Your task to perform on an android device: toggle improve location accuracy Image 0: 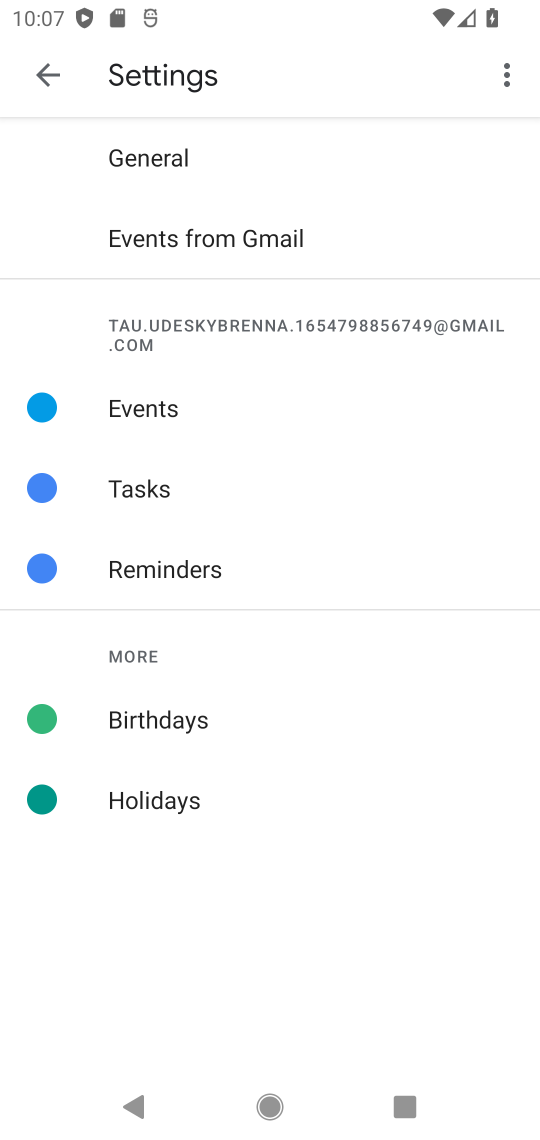
Step 0: press back button
Your task to perform on an android device: toggle improve location accuracy Image 1: 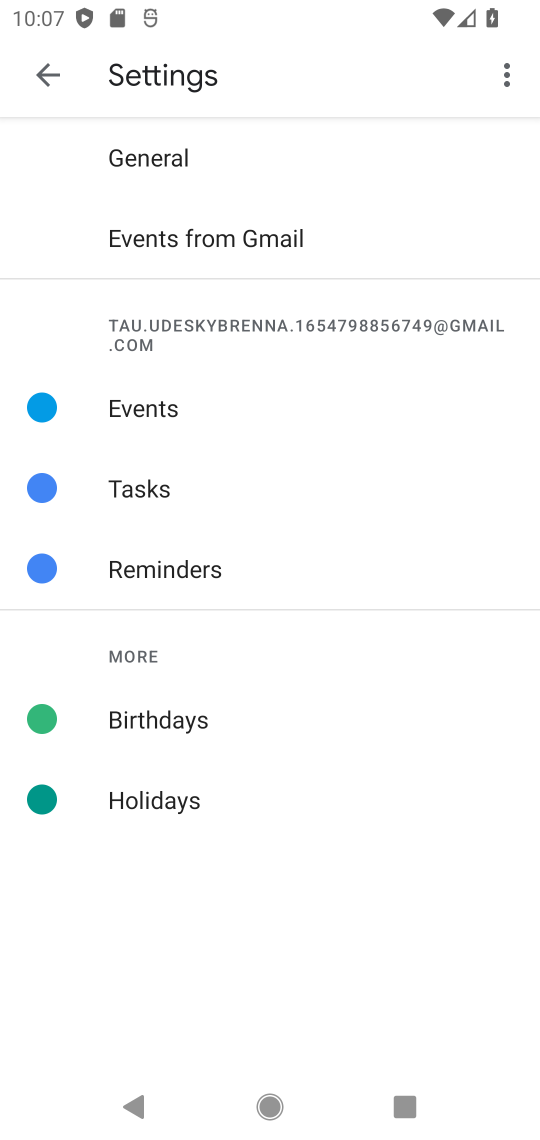
Step 1: press back button
Your task to perform on an android device: toggle improve location accuracy Image 2: 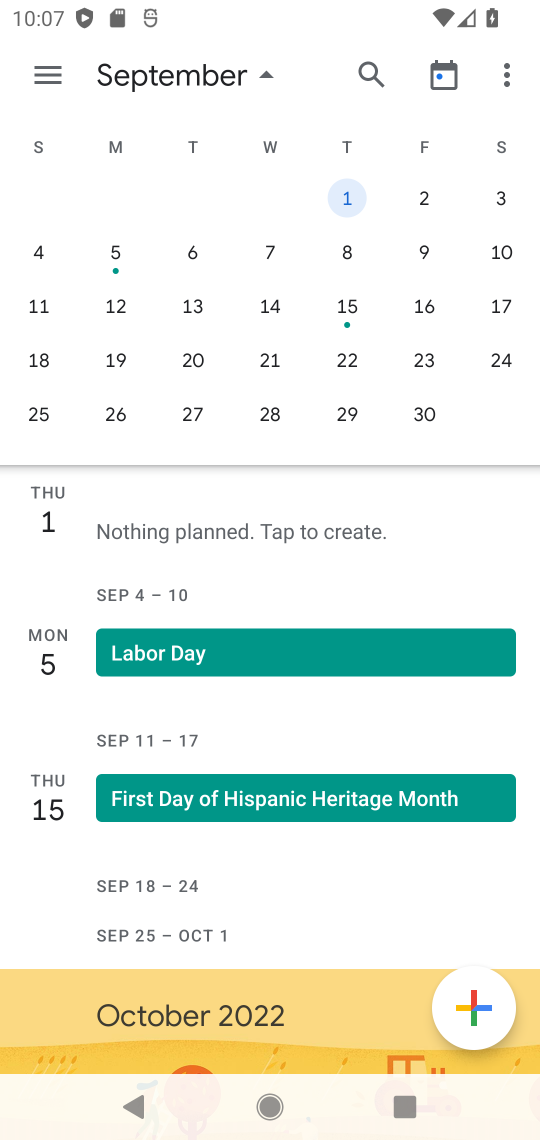
Step 2: press back button
Your task to perform on an android device: toggle improve location accuracy Image 3: 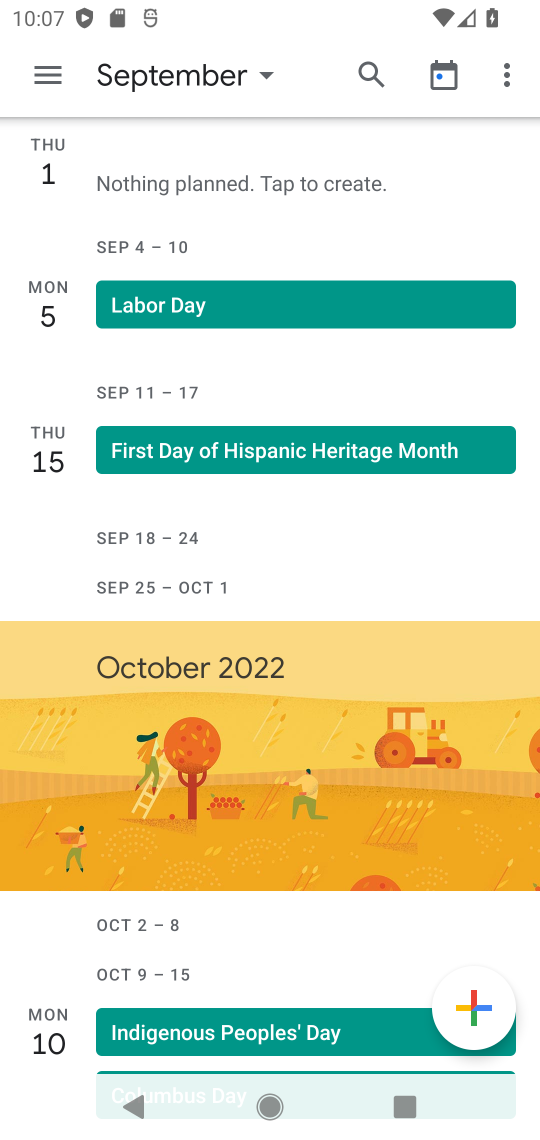
Step 3: press back button
Your task to perform on an android device: toggle improve location accuracy Image 4: 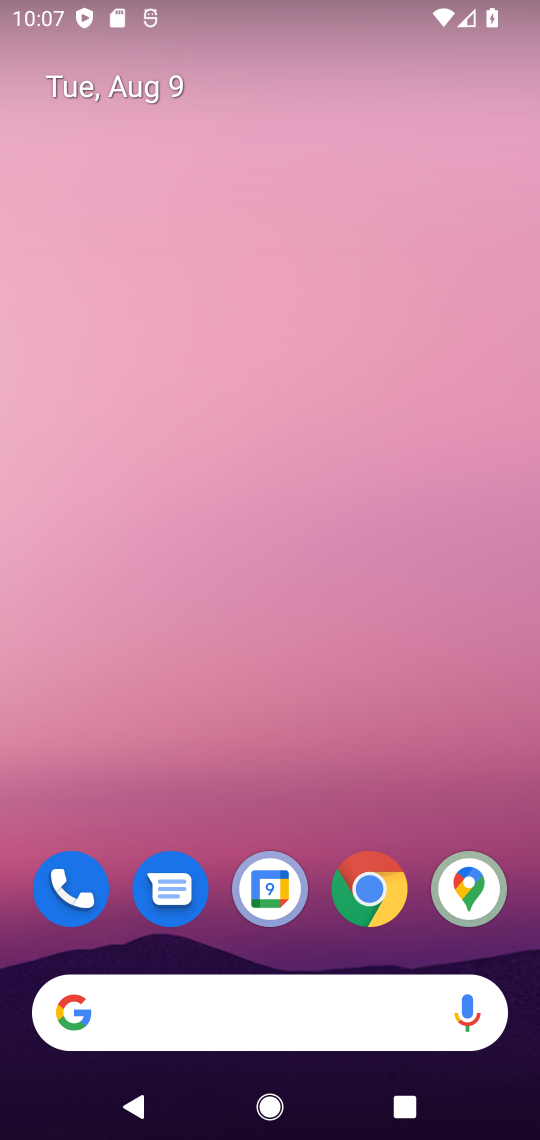
Step 4: drag from (226, 876) to (376, 163)
Your task to perform on an android device: toggle improve location accuracy Image 5: 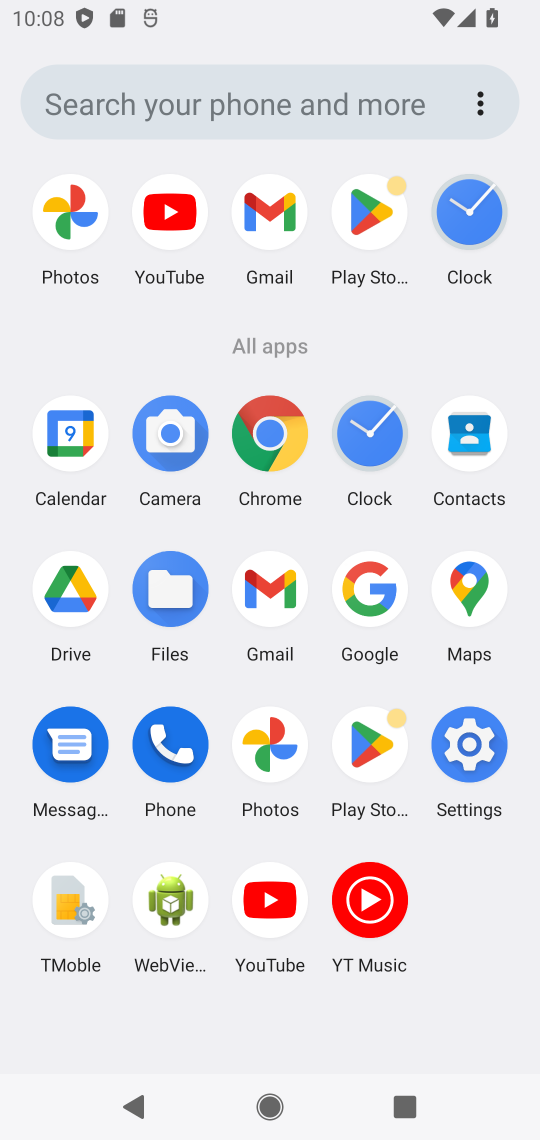
Step 5: click (461, 743)
Your task to perform on an android device: toggle improve location accuracy Image 6: 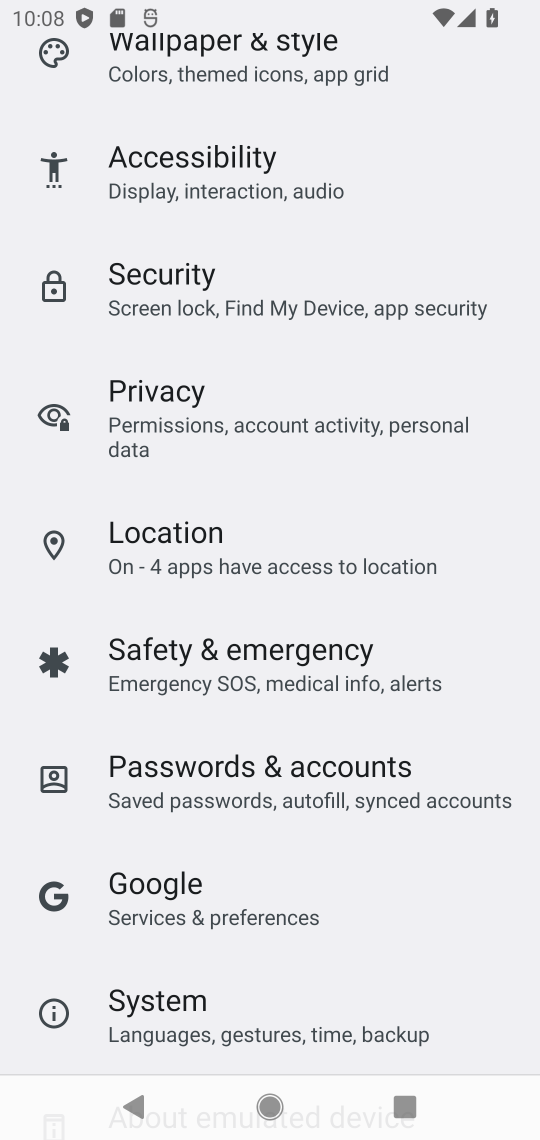
Step 6: click (248, 534)
Your task to perform on an android device: toggle improve location accuracy Image 7: 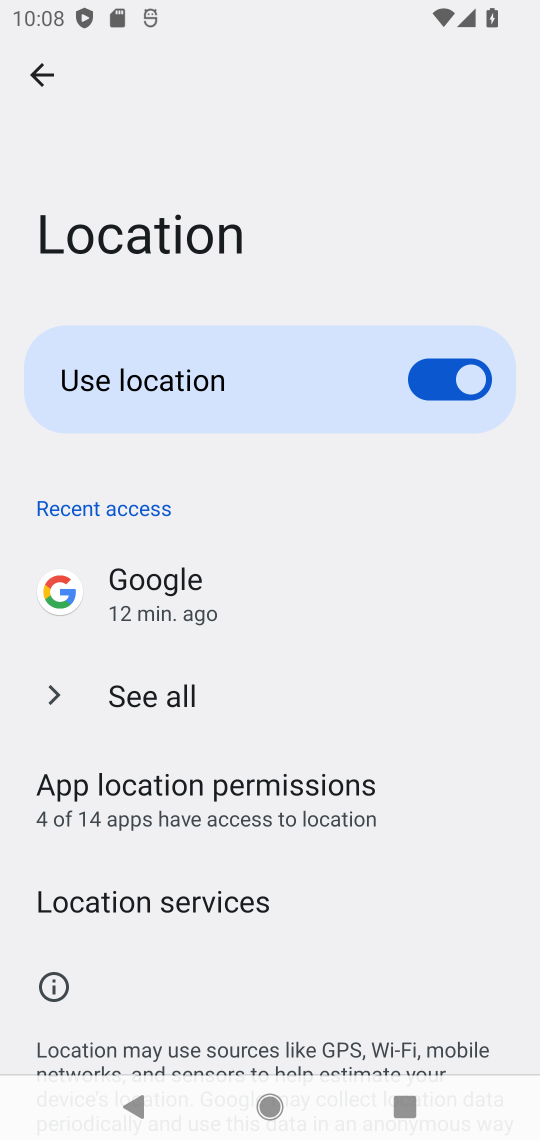
Step 7: click (187, 902)
Your task to perform on an android device: toggle improve location accuracy Image 8: 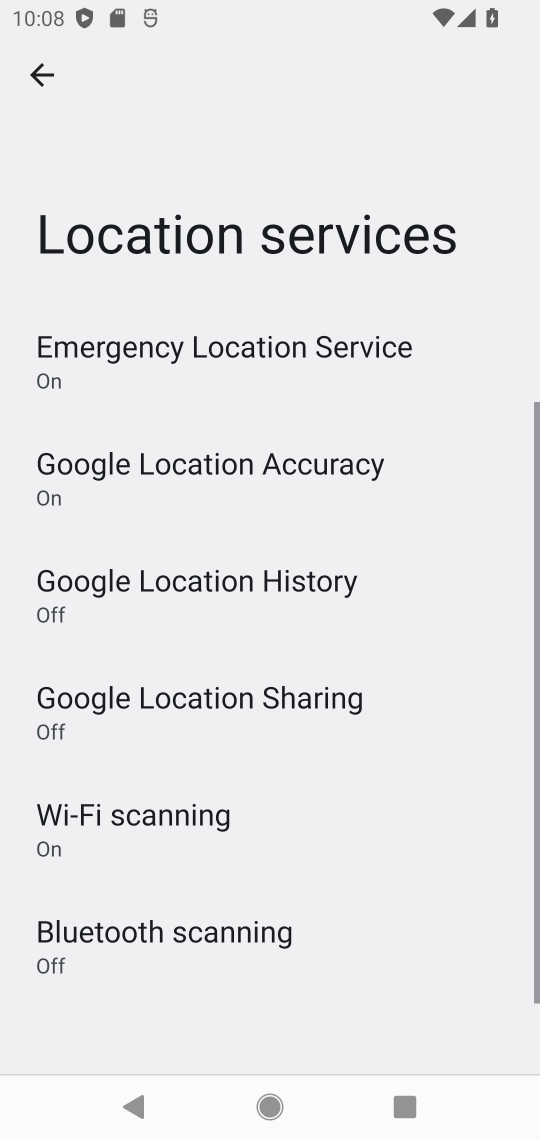
Step 8: click (234, 482)
Your task to perform on an android device: toggle improve location accuracy Image 9: 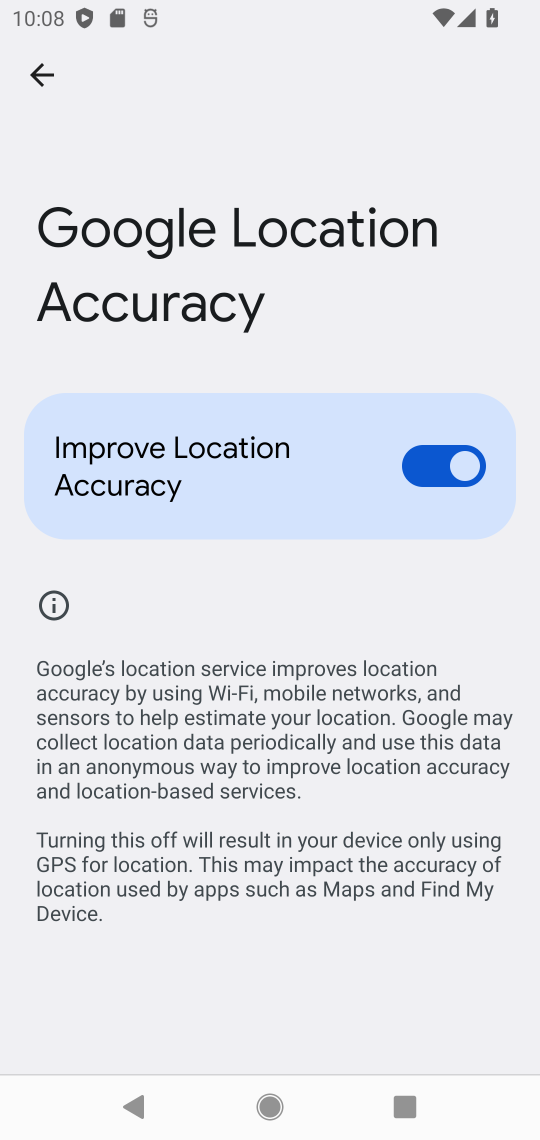
Step 9: click (439, 461)
Your task to perform on an android device: toggle improve location accuracy Image 10: 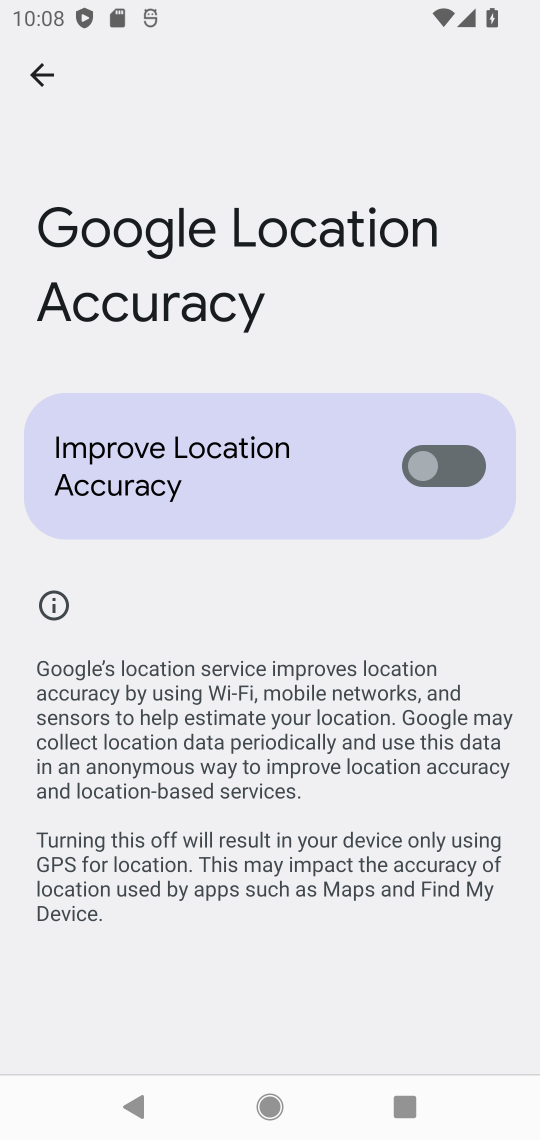
Step 10: task complete